Your task to perform on an android device: change the clock display to show seconds Image 0: 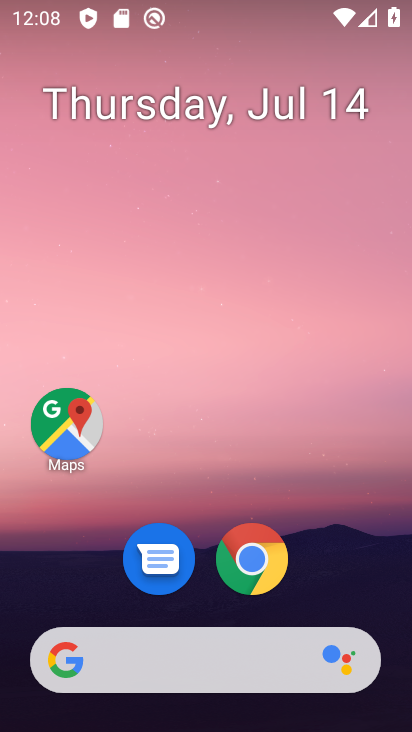
Step 0: drag from (373, 567) to (337, 79)
Your task to perform on an android device: change the clock display to show seconds Image 1: 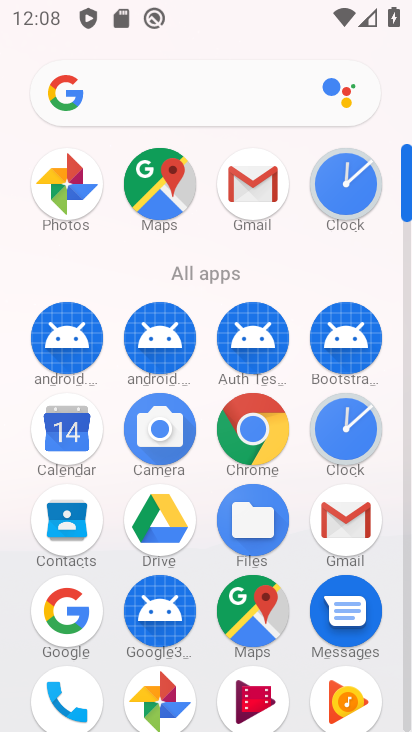
Step 1: click (347, 188)
Your task to perform on an android device: change the clock display to show seconds Image 2: 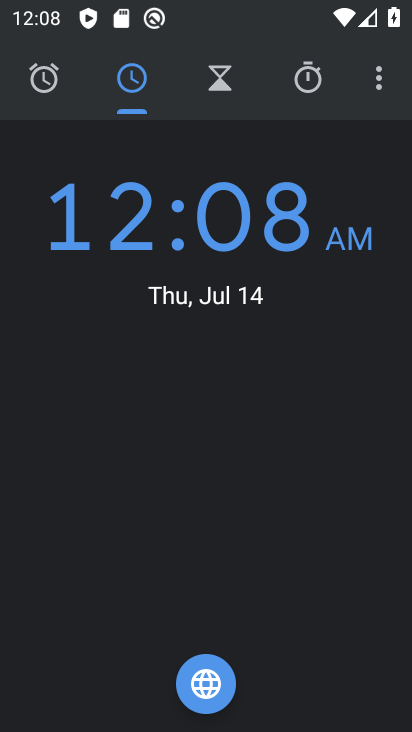
Step 2: click (379, 78)
Your task to perform on an android device: change the clock display to show seconds Image 3: 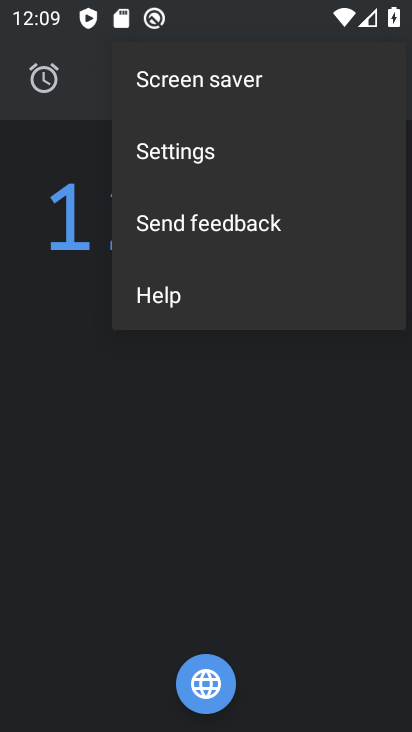
Step 3: click (224, 155)
Your task to perform on an android device: change the clock display to show seconds Image 4: 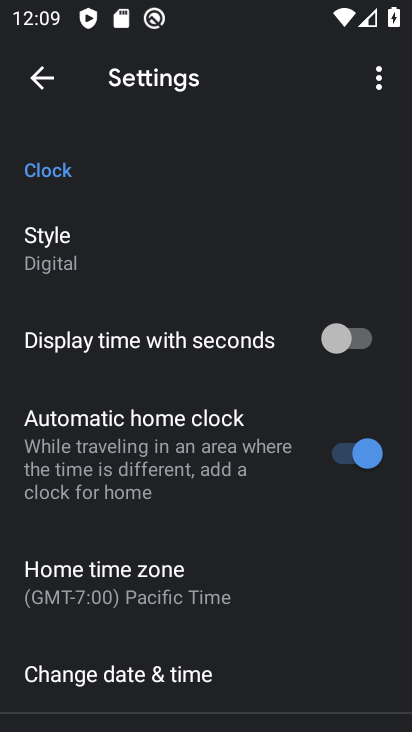
Step 4: click (357, 334)
Your task to perform on an android device: change the clock display to show seconds Image 5: 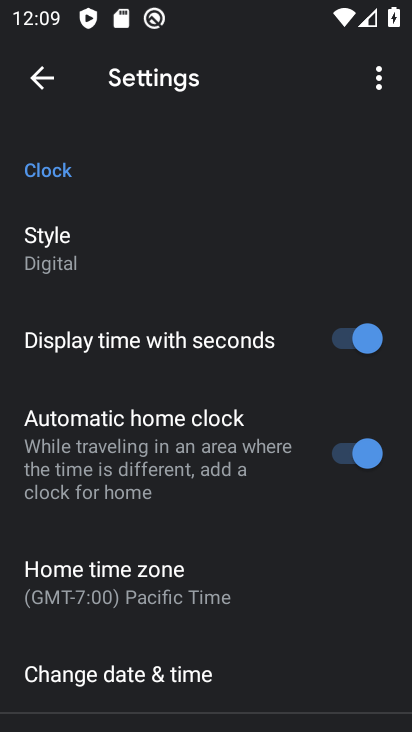
Step 5: task complete